Your task to perform on an android device: Check the weather Image 0: 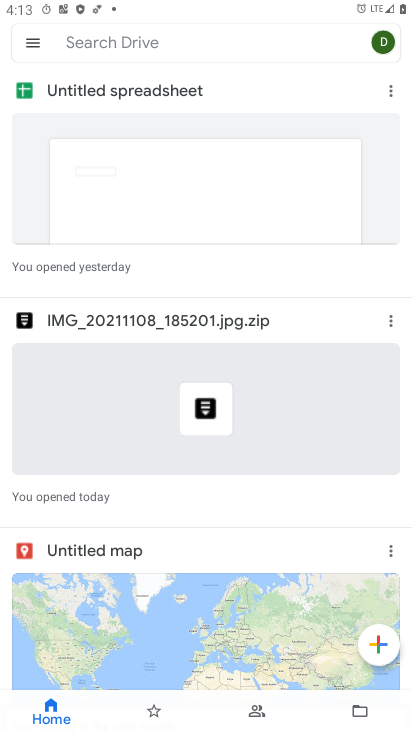
Step 0: press home button
Your task to perform on an android device: Check the weather Image 1: 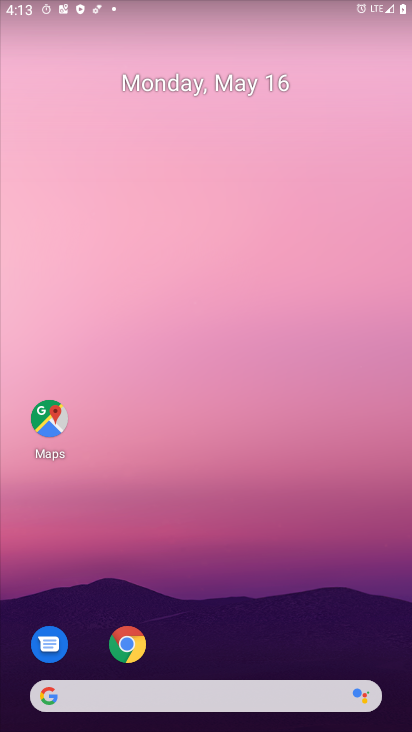
Step 1: drag from (227, 619) to (274, 126)
Your task to perform on an android device: Check the weather Image 2: 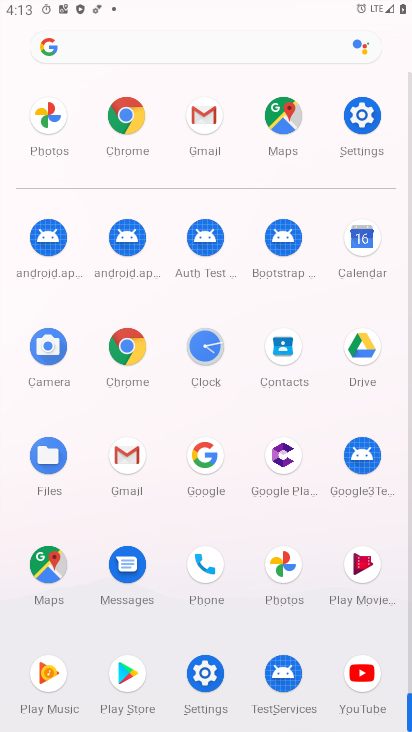
Step 2: click (208, 460)
Your task to perform on an android device: Check the weather Image 3: 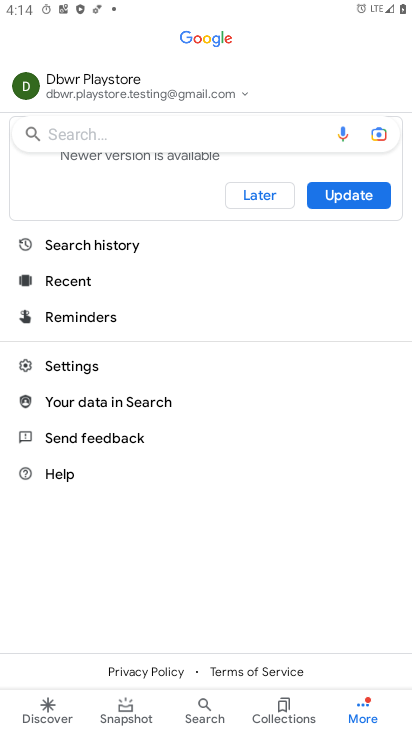
Step 3: click (54, 702)
Your task to perform on an android device: Check the weather Image 4: 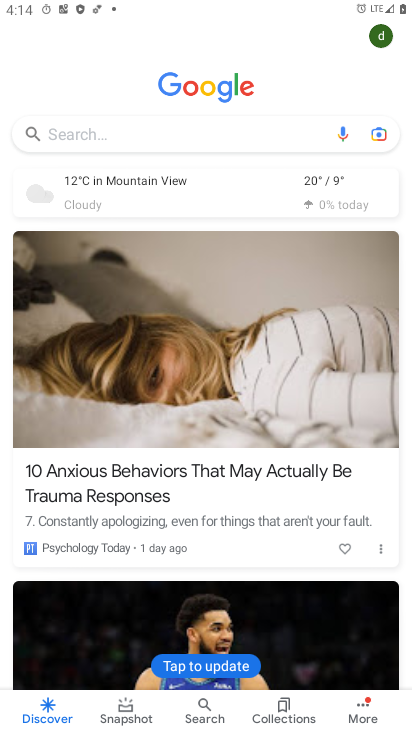
Step 4: click (216, 136)
Your task to perform on an android device: Check the weather Image 5: 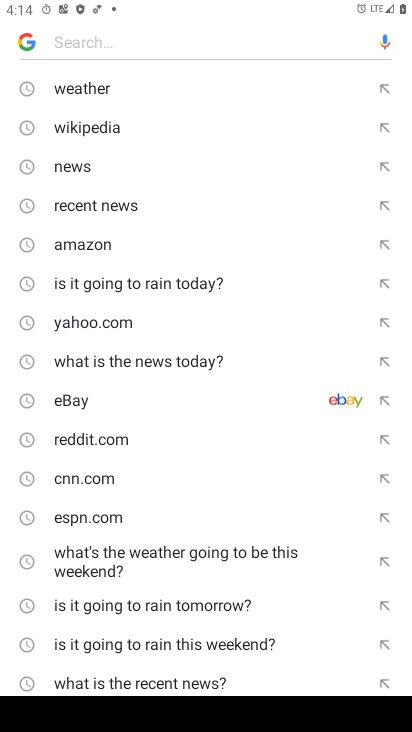
Step 5: click (223, 76)
Your task to perform on an android device: Check the weather Image 6: 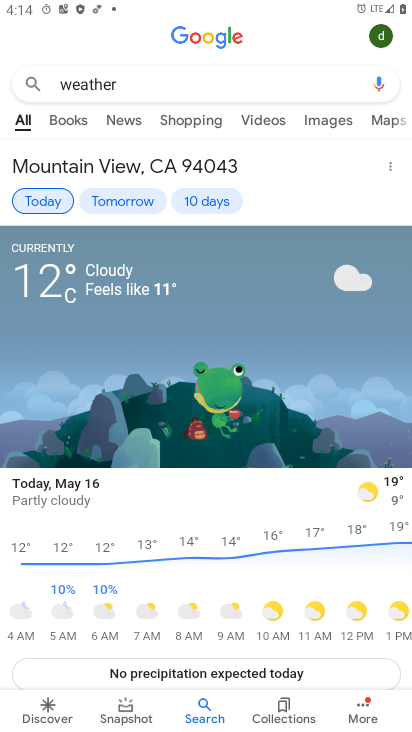
Step 6: task complete